Your task to perform on an android device: see tabs open on other devices in the chrome app Image 0: 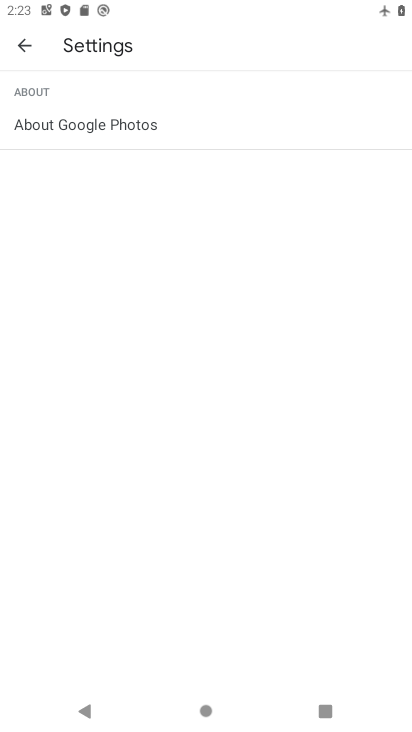
Step 0: press home button
Your task to perform on an android device: see tabs open on other devices in the chrome app Image 1: 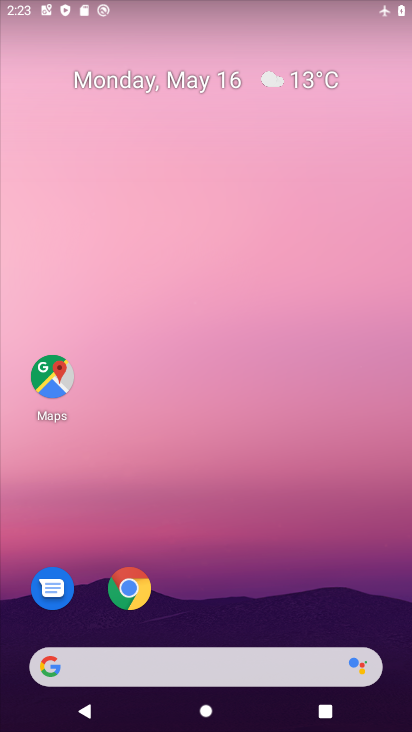
Step 1: drag from (295, 666) to (314, 41)
Your task to perform on an android device: see tabs open on other devices in the chrome app Image 2: 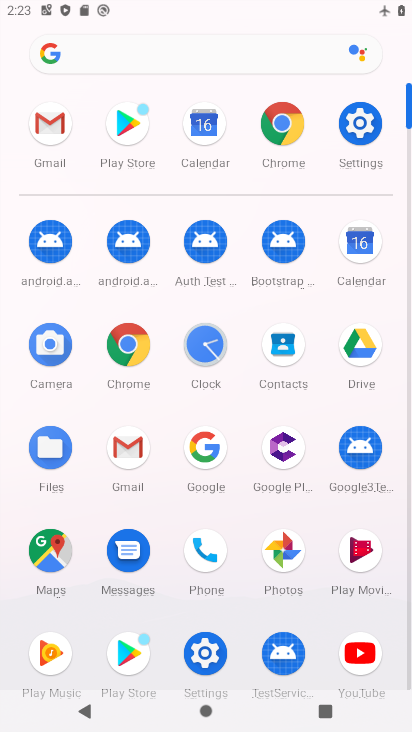
Step 2: click (131, 340)
Your task to perform on an android device: see tabs open on other devices in the chrome app Image 3: 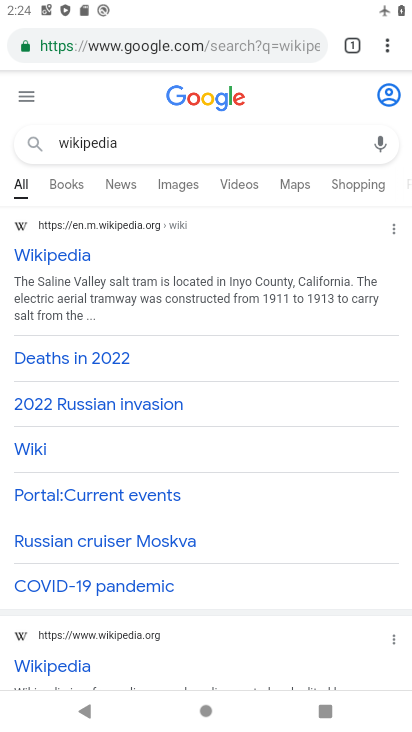
Step 3: click (388, 40)
Your task to perform on an android device: see tabs open on other devices in the chrome app Image 4: 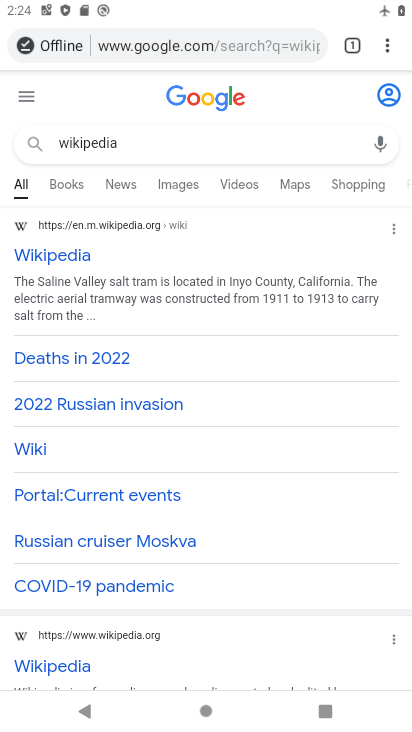
Step 4: click (382, 43)
Your task to perform on an android device: see tabs open on other devices in the chrome app Image 5: 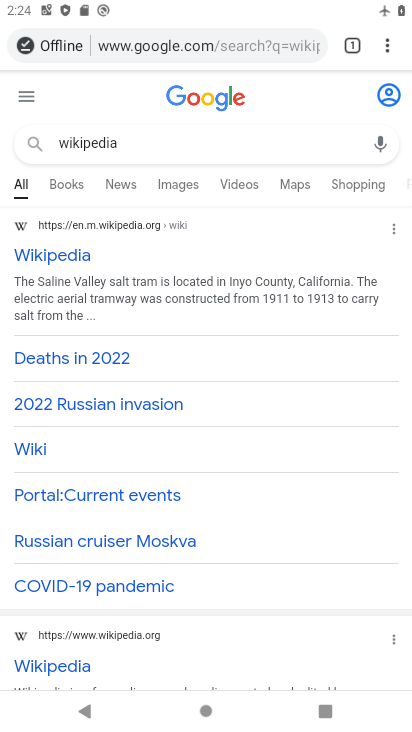
Step 5: task complete